Your task to perform on an android device: toggle notifications settings in the gmail app Image 0: 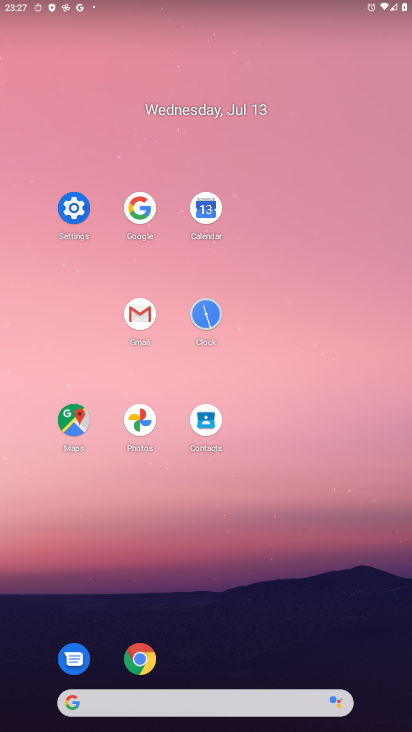
Step 0: click (147, 313)
Your task to perform on an android device: toggle notifications settings in the gmail app Image 1: 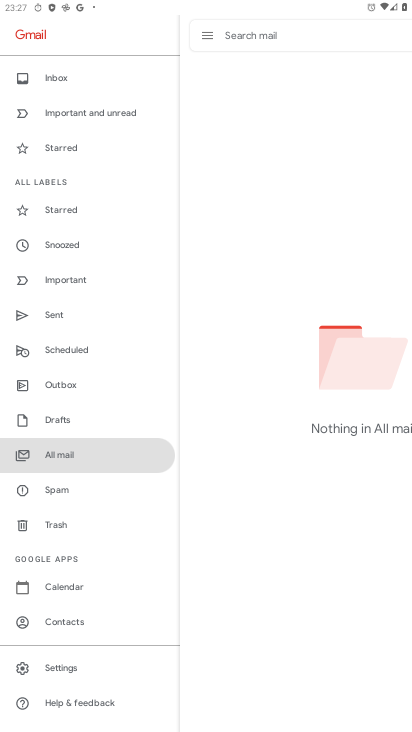
Step 1: click (97, 670)
Your task to perform on an android device: toggle notifications settings in the gmail app Image 2: 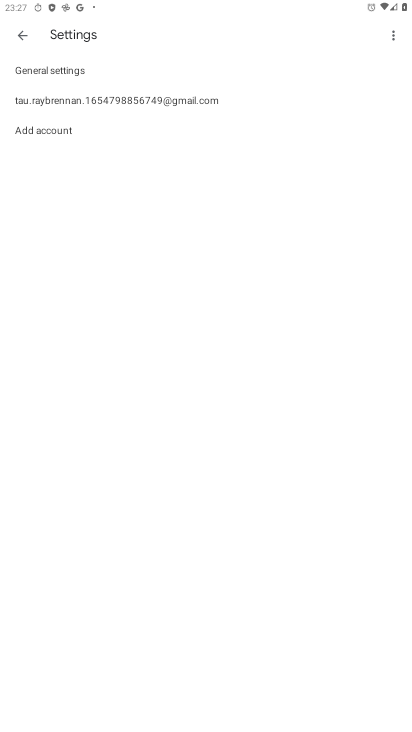
Step 2: click (183, 101)
Your task to perform on an android device: toggle notifications settings in the gmail app Image 3: 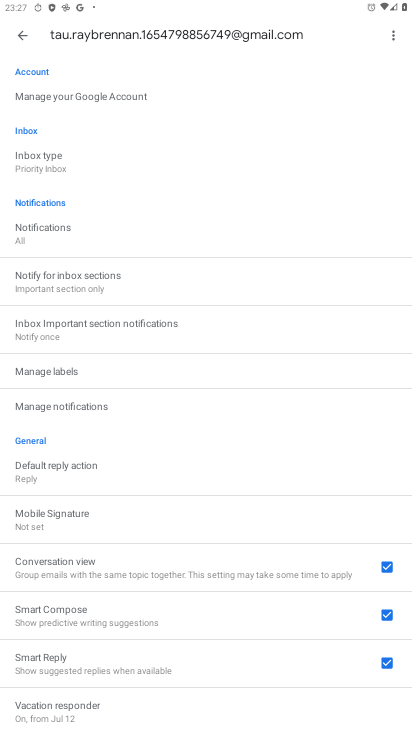
Step 3: click (113, 237)
Your task to perform on an android device: toggle notifications settings in the gmail app Image 4: 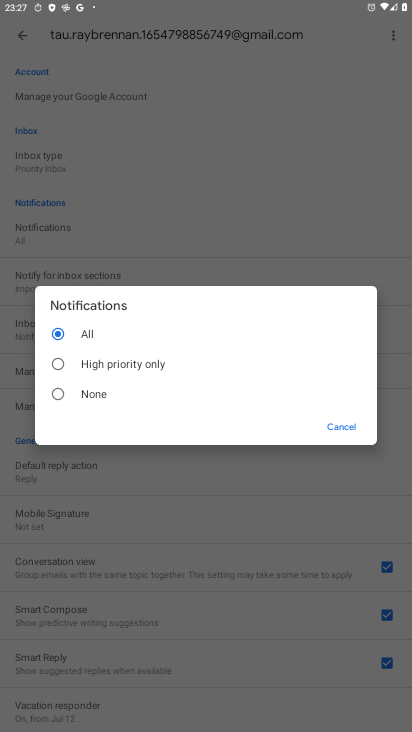
Step 4: click (86, 365)
Your task to perform on an android device: toggle notifications settings in the gmail app Image 5: 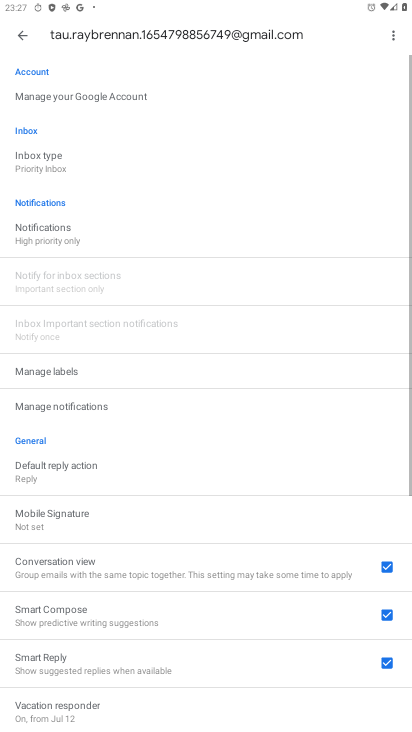
Step 5: task complete